Your task to perform on an android device: turn off location Image 0: 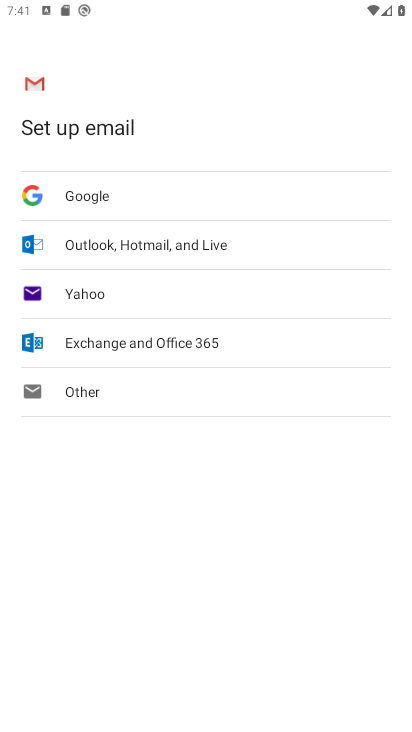
Step 0: press home button
Your task to perform on an android device: turn off location Image 1: 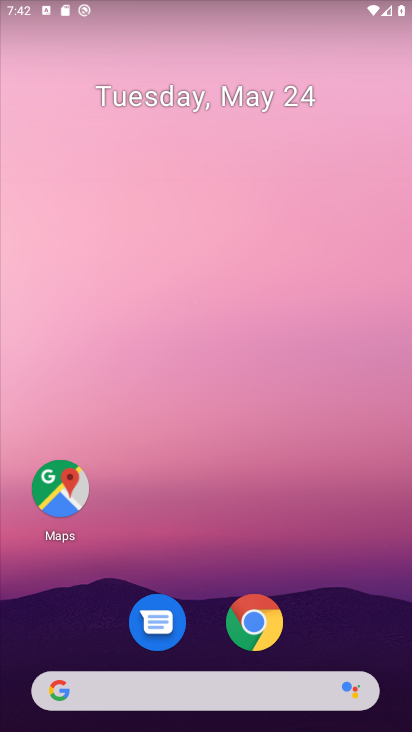
Step 1: drag from (312, 705) to (138, 57)
Your task to perform on an android device: turn off location Image 2: 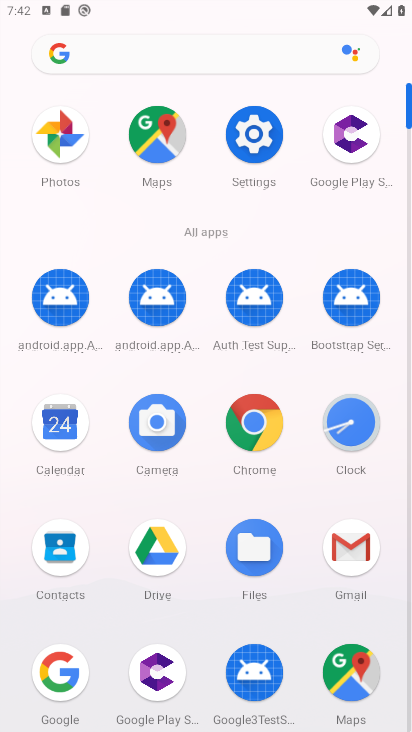
Step 2: click (259, 153)
Your task to perform on an android device: turn off location Image 3: 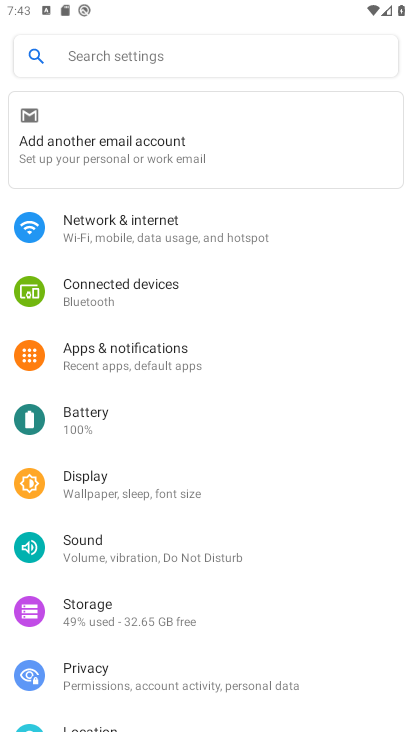
Step 3: click (216, 60)
Your task to perform on an android device: turn off location Image 4: 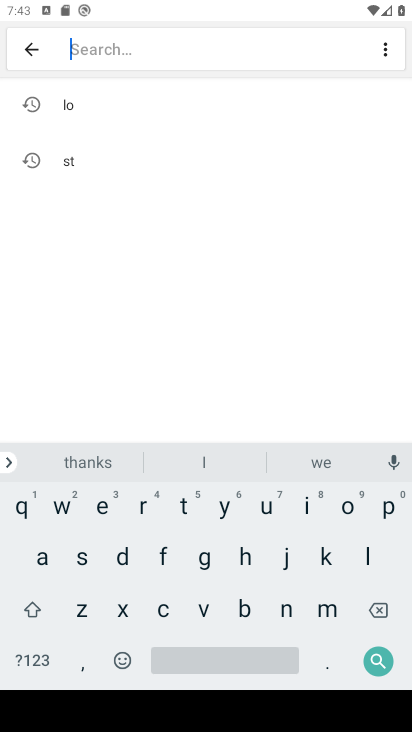
Step 4: click (370, 547)
Your task to perform on an android device: turn off location Image 5: 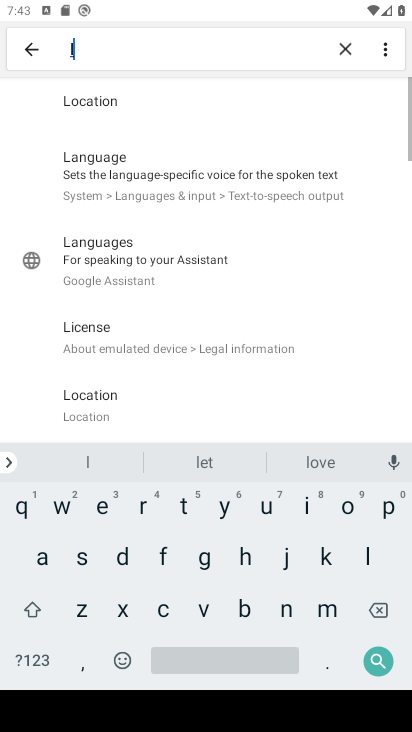
Step 5: click (343, 504)
Your task to perform on an android device: turn off location Image 6: 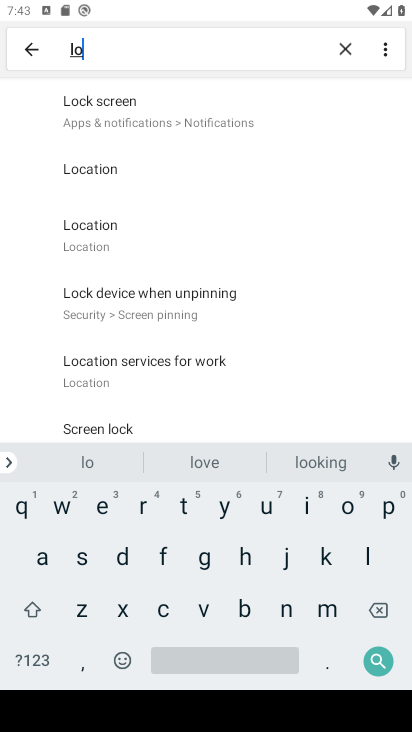
Step 6: click (73, 234)
Your task to perform on an android device: turn off location Image 7: 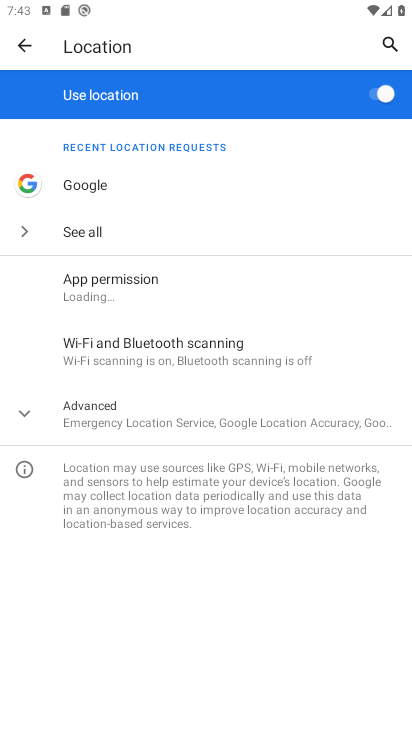
Step 7: click (372, 88)
Your task to perform on an android device: turn off location Image 8: 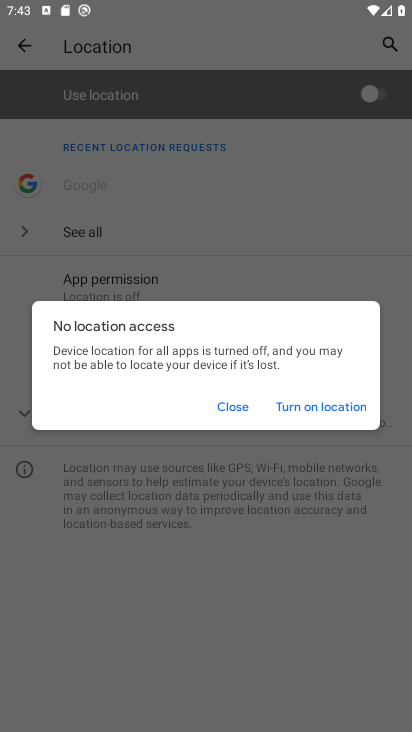
Step 8: task complete